Your task to perform on an android device: Open accessibility settings Image 0: 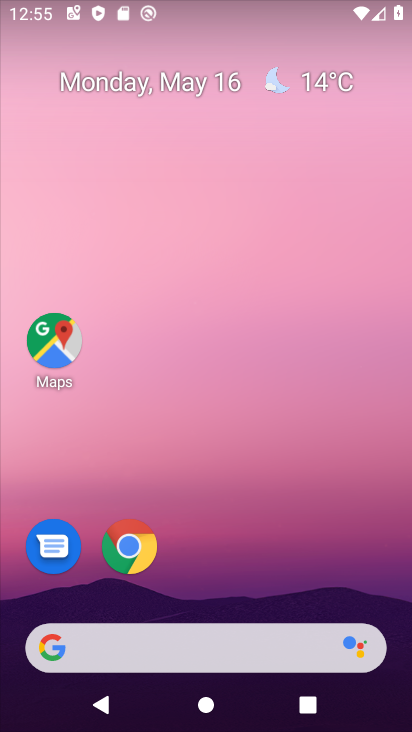
Step 0: drag from (258, 680) to (209, 207)
Your task to perform on an android device: Open accessibility settings Image 1: 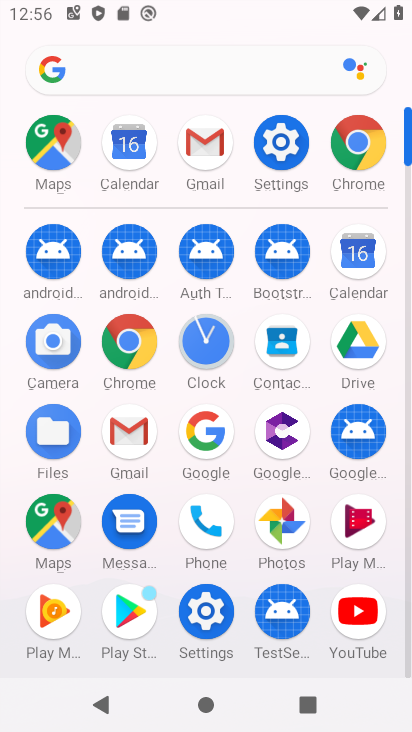
Step 1: click (272, 157)
Your task to perform on an android device: Open accessibility settings Image 2: 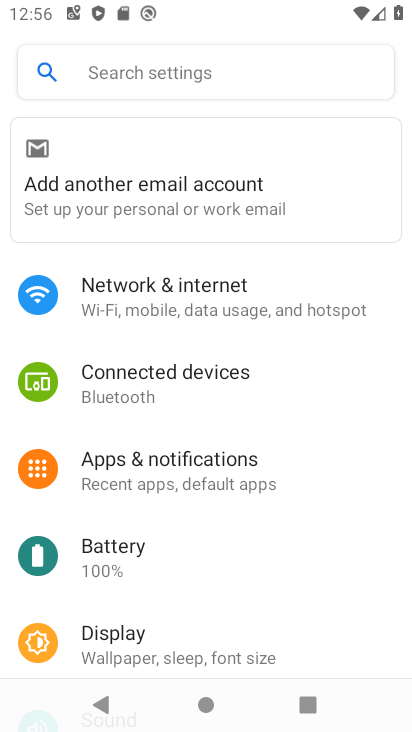
Step 2: click (166, 75)
Your task to perform on an android device: Open accessibility settings Image 3: 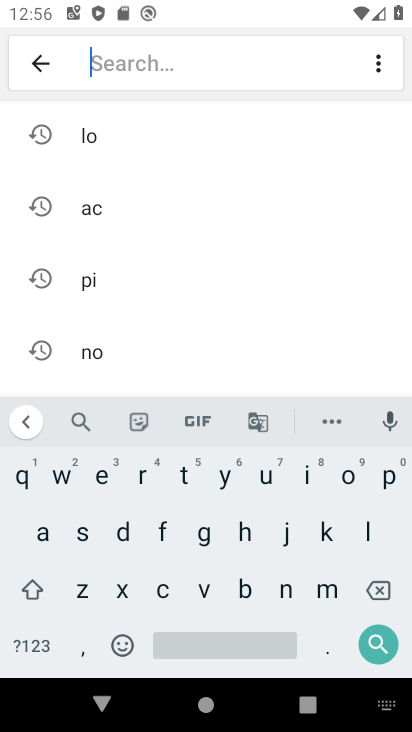
Step 3: click (33, 555)
Your task to perform on an android device: Open accessibility settings Image 4: 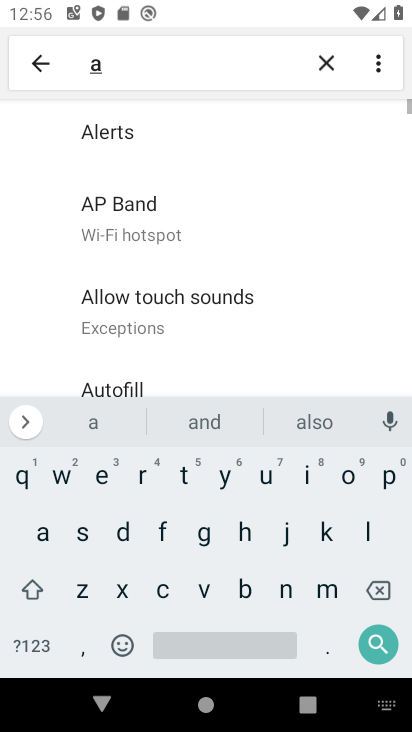
Step 4: click (156, 592)
Your task to perform on an android device: Open accessibility settings Image 5: 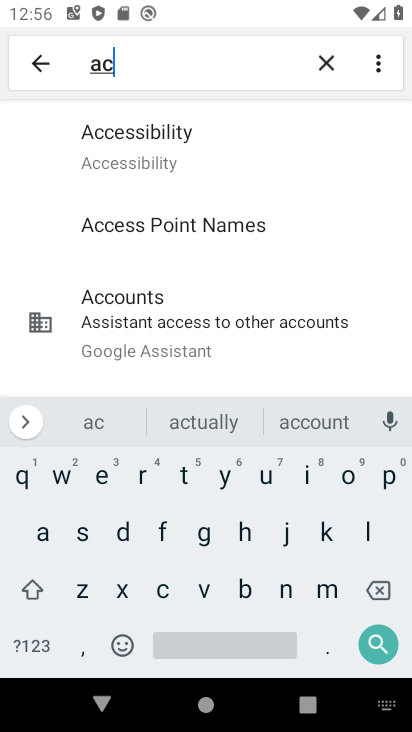
Step 5: click (146, 145)
Your task to perform on an android device: Open accessibility settings Image 6: 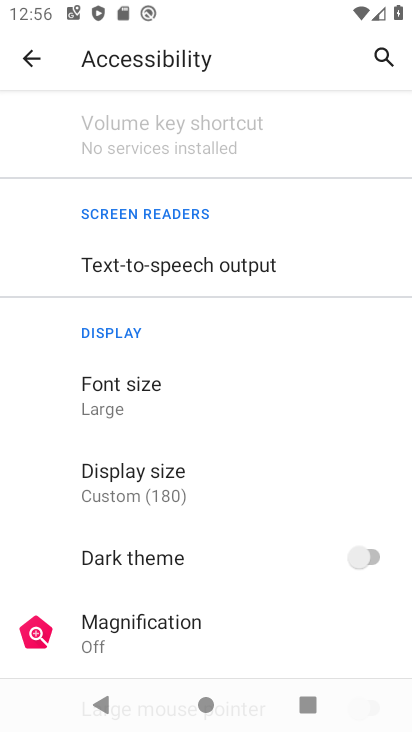
Step 6: task complete